Your task to perform on an android device: Open location settings Image 0: 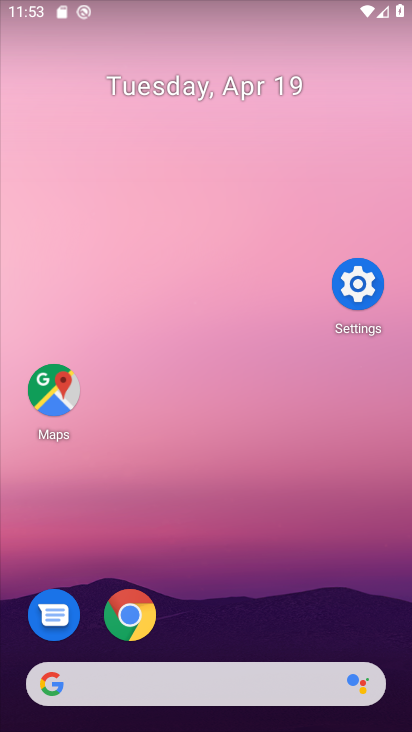
Step 0: drag from (198, 564) to (262, 177)
Your task to perform on an android device: Open location settings Image 1: 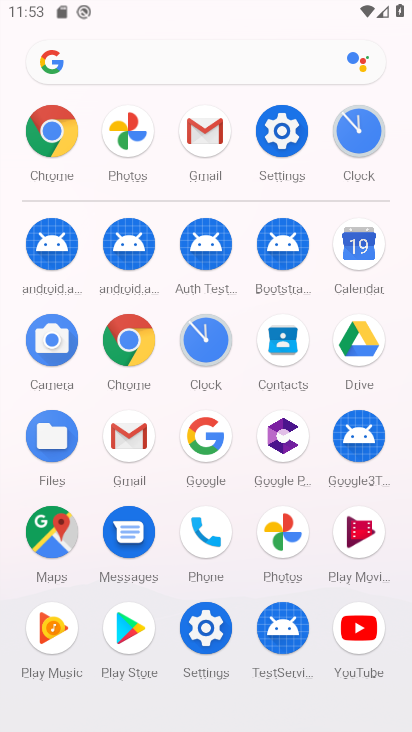
Step 1: click (205, 620)
Your task to perform on an android device: Open location settings Image 2: 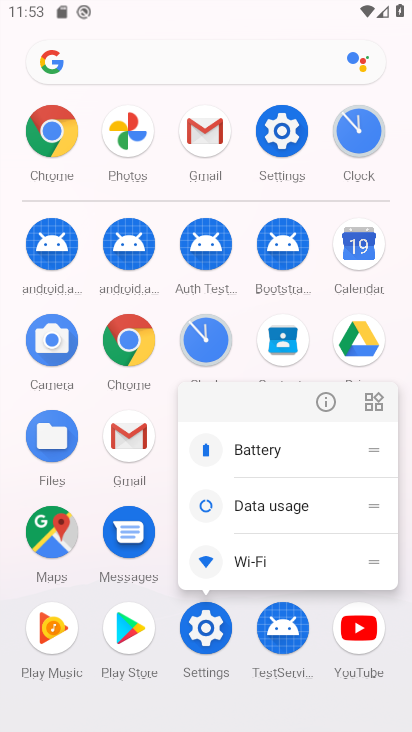
Step 2: click (321, 404)
Your task to perform on an android device: Open location settings Image 3: 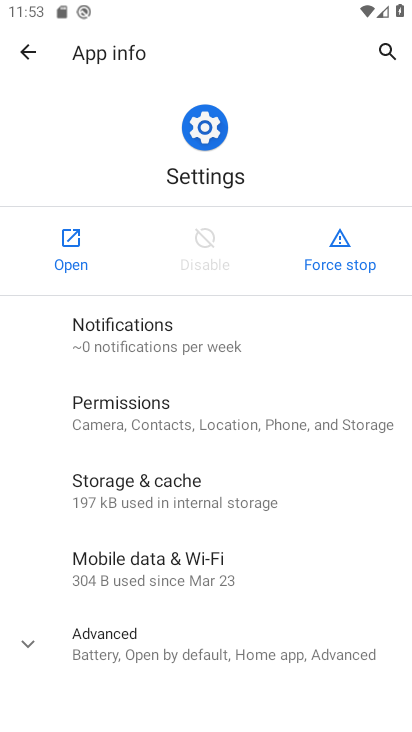
Step 3: click (71, 275)
Your task to perform on an android device: Open location settings Image 4: 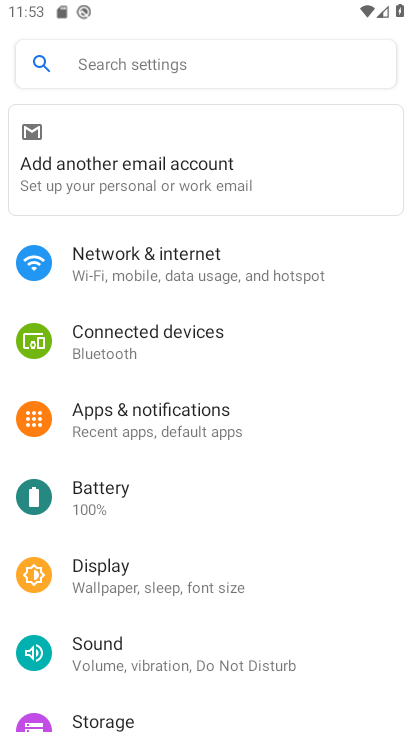
Step 4: drag from (139, 673) to (270, 259)
Your task to perform on an android device: Open location settings Image 5: 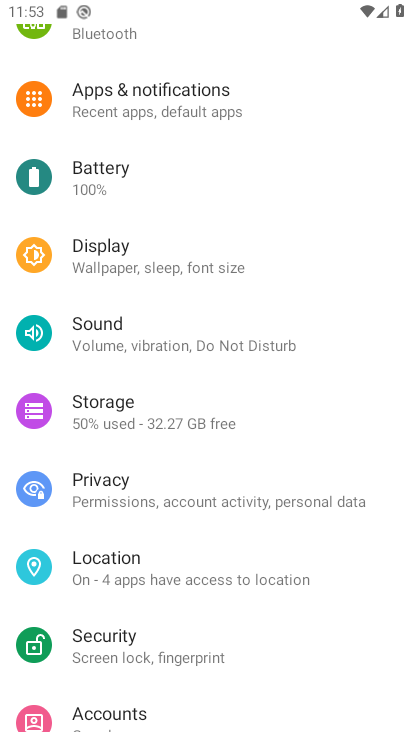
Step 5: click (124, 548)
Your task to perform on an android device: Open location settings Image 6: 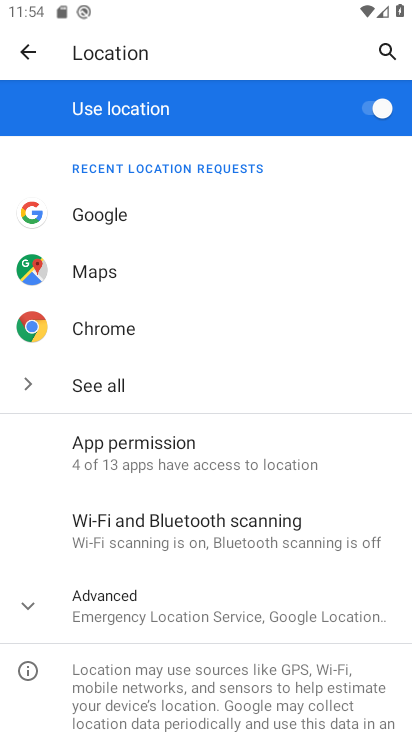
Step 6: task complete